Your task to perform on an android device: What's the weather going to be this weekend? Image 0: 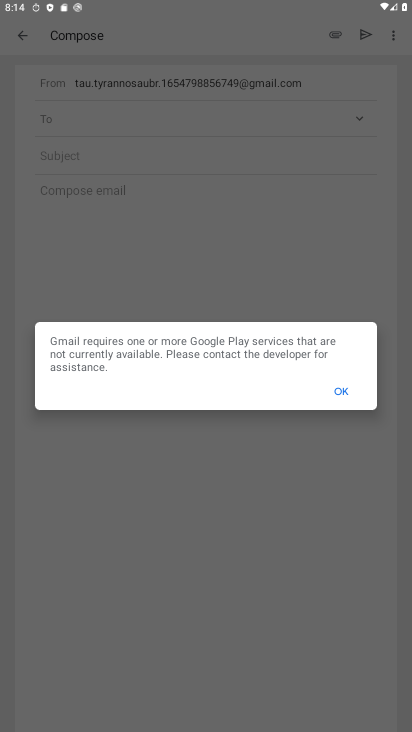
Step 0: press back button
Your task to perform on an android device: What's the weather going to be this weekend? Image 1: 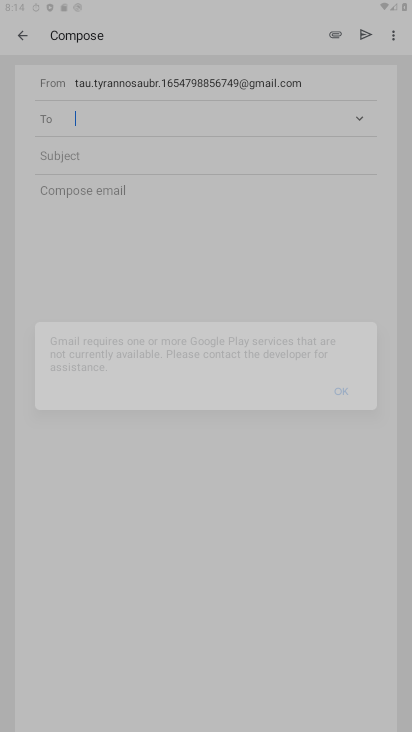
Step 1: press back button
Your task to perform on an android device: What's the weather going to be this weekend? Image 2: 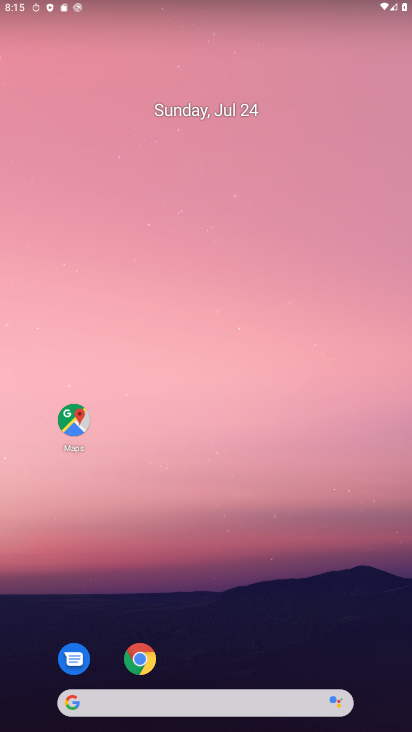
Step 2: drag from (223, 671) to (190, 186)
Your task to perform on an android device: What's the weather going to be this weekend? Image 3: 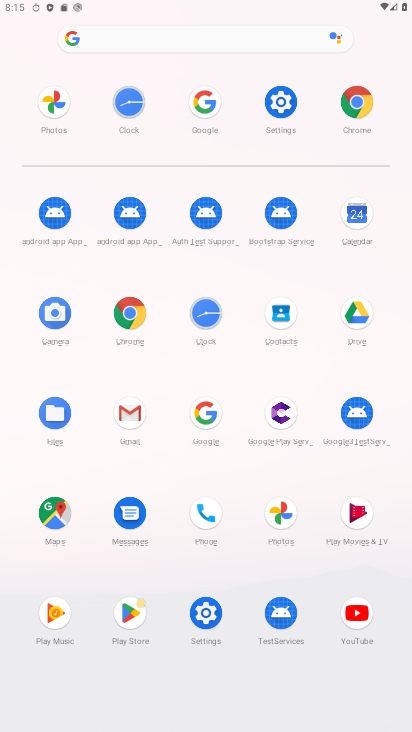
Step 3: click (349, 113)
Your task to perform on an android device: What's the weather going to be this weekend? Image 4: 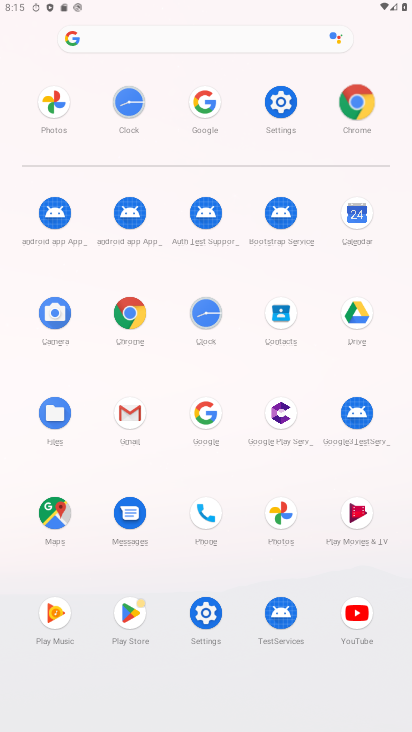
Step 4: click (351, 111)
Your task to perform on an android device: What's the weather going to be this weekend? Image 5: 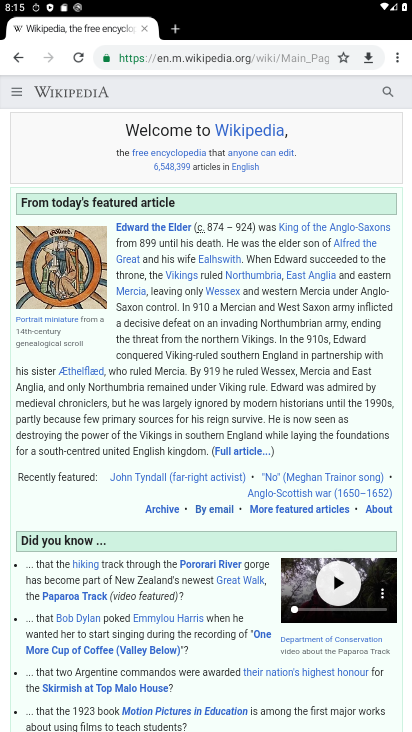
Step 5: drag from (399, 51) to (268, 50)
Your task to perform on an android device: What's the weather going to be this weekend? Image 6: 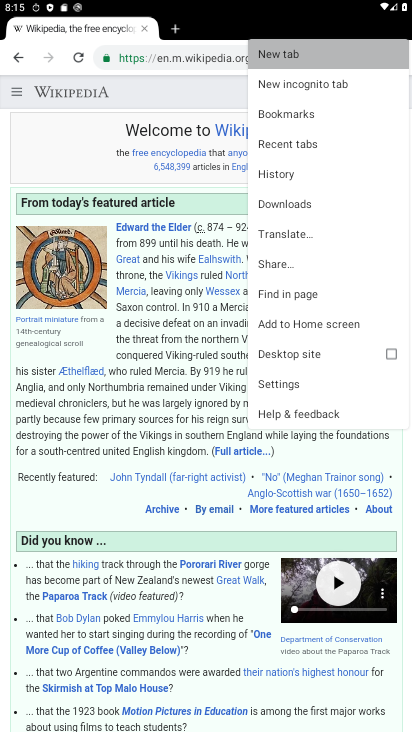
Step 6: click (268, 49)
Your task to perform on an android device: What's the weather going to be this weekend? Image 7: 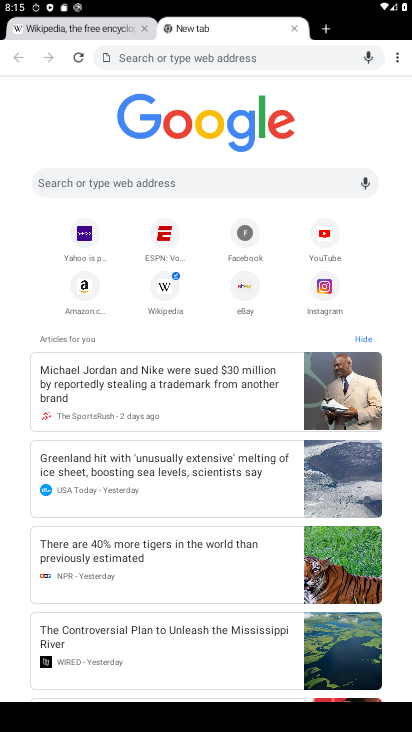
Step 7: click (74, 174)
Your task to perform on an android device: What's the weather going to be this weekend? Image 8: 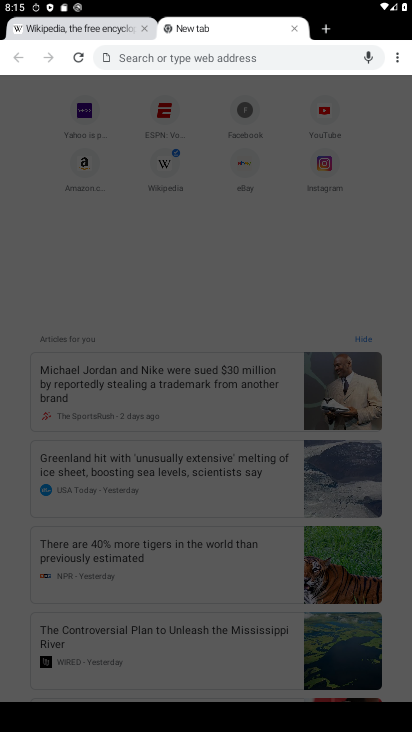
Step 8: type "weather gtoday?"
Your task to perform on an android device: What's the weather going to be this weekend? Image 9: 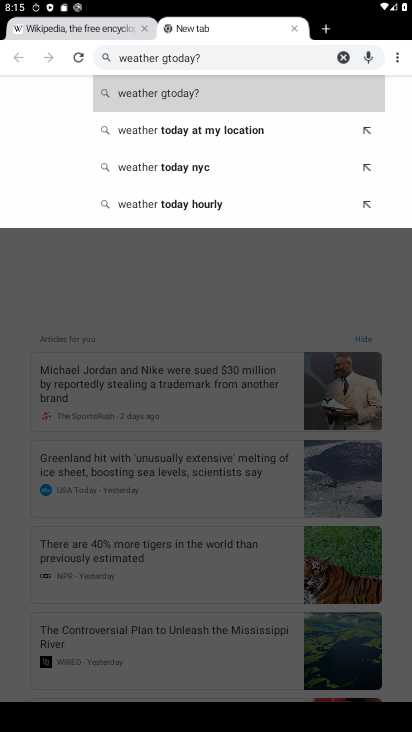
Step 9: click (227, 122)
Your task to perform on an android device: What's the weather going to be this weekend? Image 10: 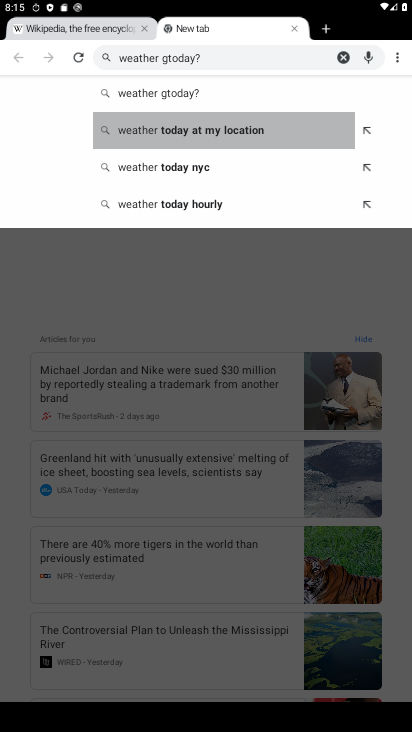
Step 10: click (228, 126)
Your task to perform on an android device: What's the weather going to be this weekend? Image 11: 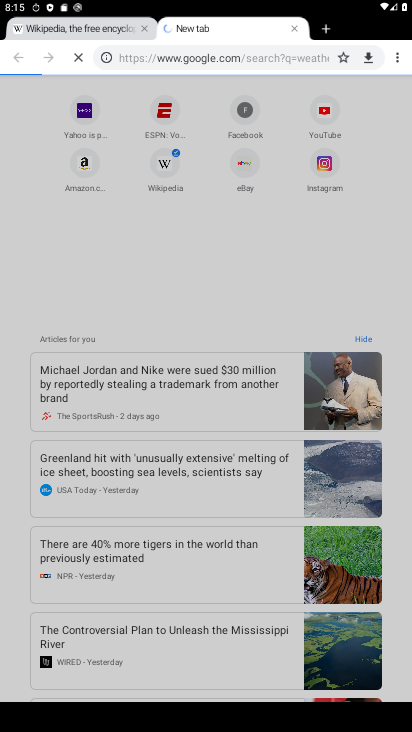
Step 11: click (228, 127)
Your task to perform on an android device: What's the weather going to be this weekend? Image 12: 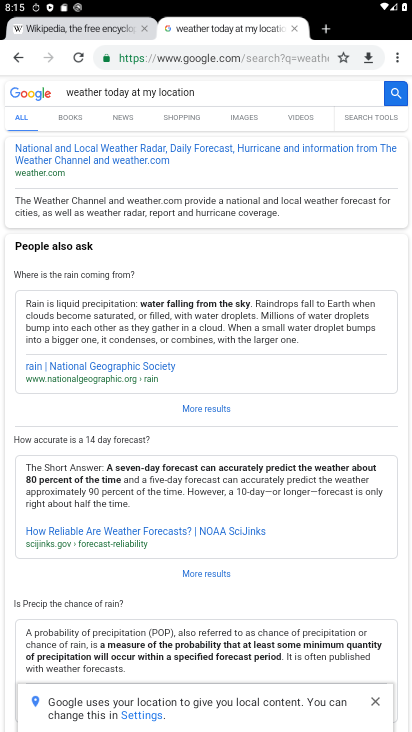
Step 12: task complete